Your task to perform on an android device: turn on priority inbox in the gmail app Image 0: 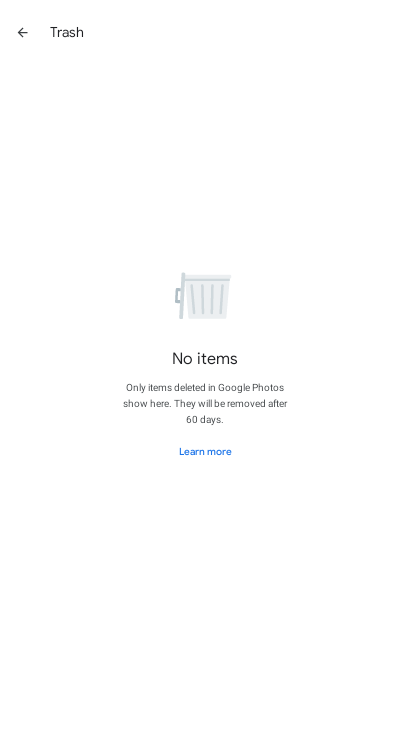
Step 0: press home button
Your task to perform on an android device: turn on priority inbox in the gmail app Image 1: 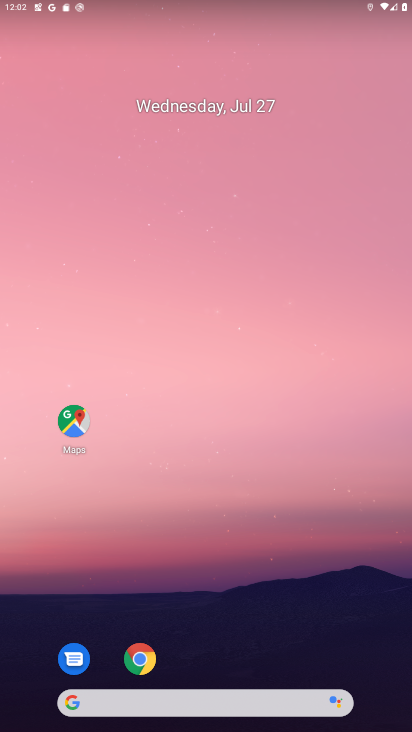
Step 1: drag from (262, 694) to (366, 55)
Your task to perform on an android device: turn on priority inbox in the gmail app Image 2: 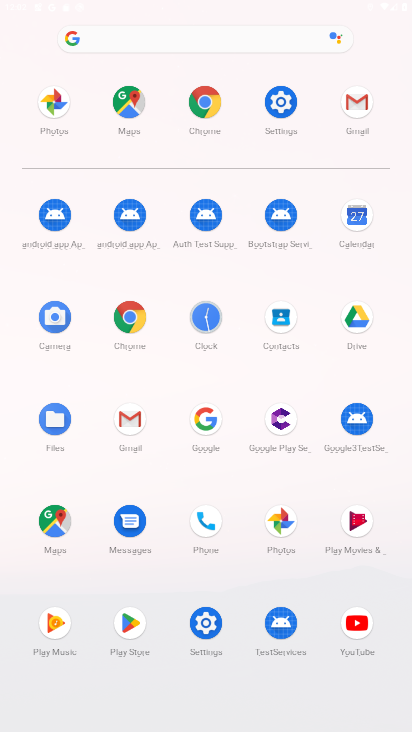
Step 2: click (134, 422)
Your task to perform on an android device: turn on priority inbox in the gmail app Image 3: 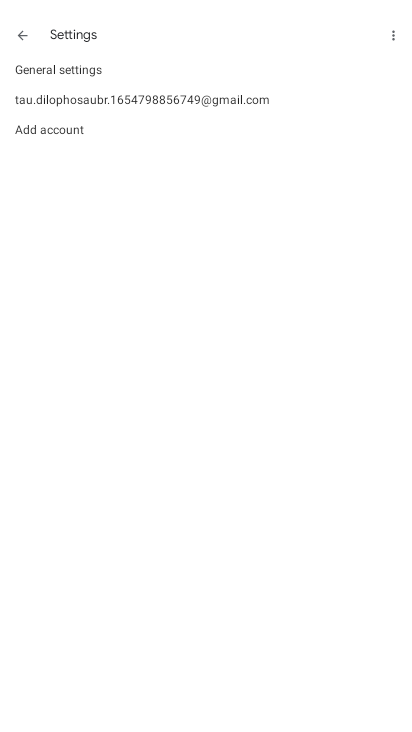
Step 3: click (232, 100)
Your task to perform on an android device: turn on priority inbox in the gmail app Image 4: 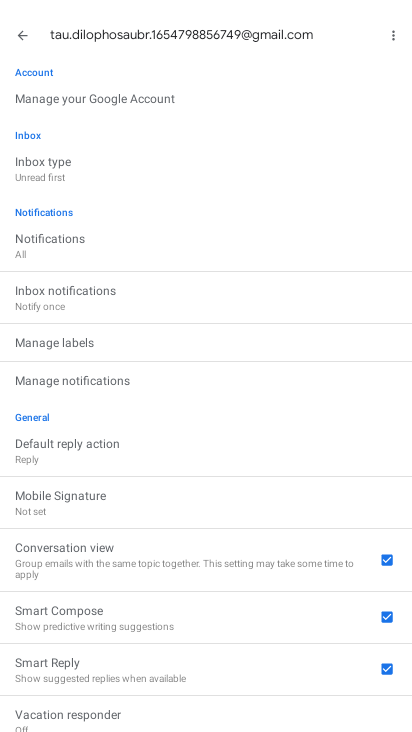
Step 4: click (66, 174)
Your task to perform on an android device: turn on priority inbox in the gmail app Image 5: 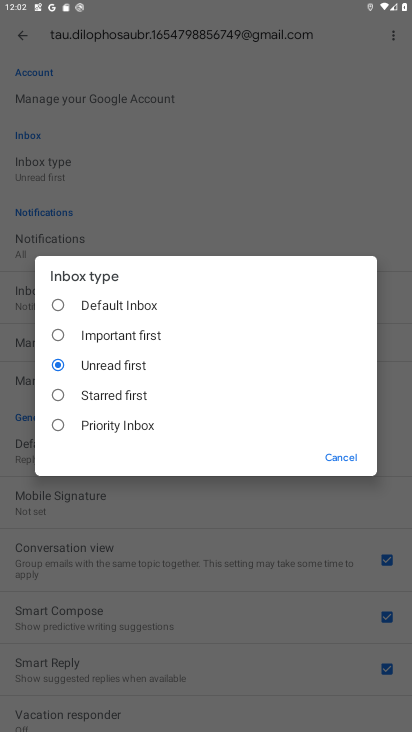
Step 5: click (56, 426)
Your task to perform on an android device: turn on priority inbox in the gmail app Image 6: 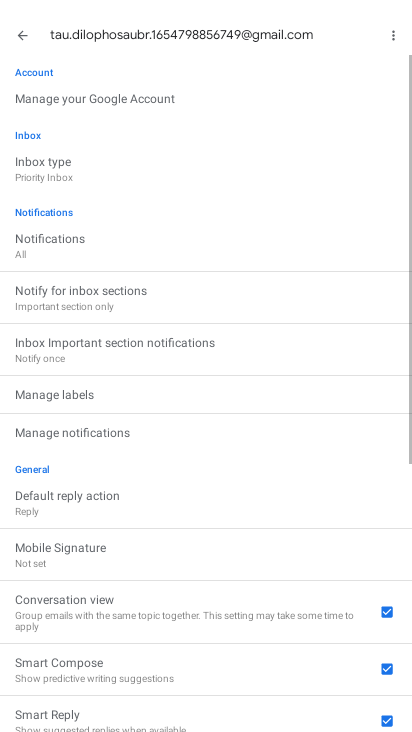
Step 6: task complete